Your task to perform on an android device: turn on airplane mode Image 0: 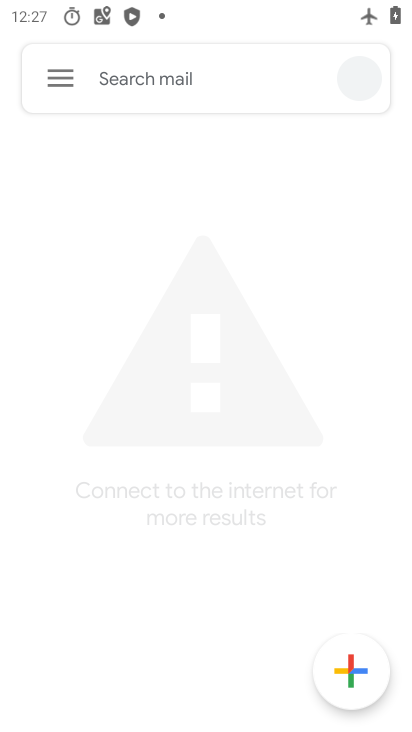
Step 0: drag from (195, 611) to (204, 322)
Your task to perform on an android device: turn on airplane mode Image 1: 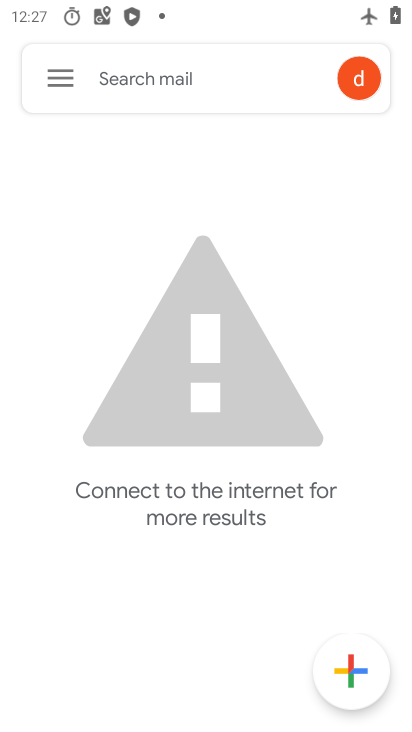
Step 1: drag from (206, 649) to (229, 320)
Your task to perform on an android device: turn on airplane mode Image 2: 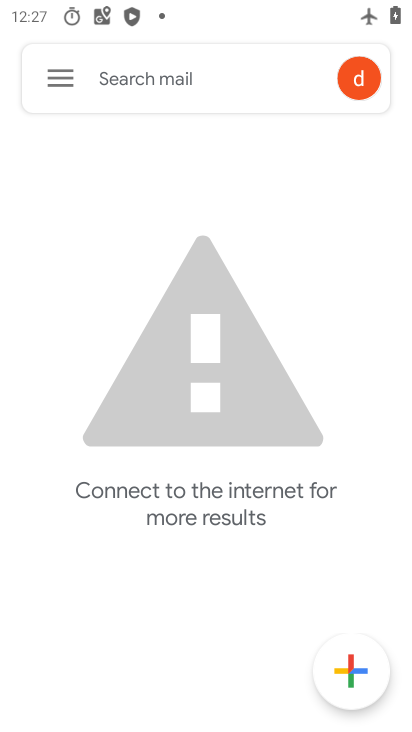
Step 2: press home button
Your task to perform on an android device: turn on airplane mode Image 3: 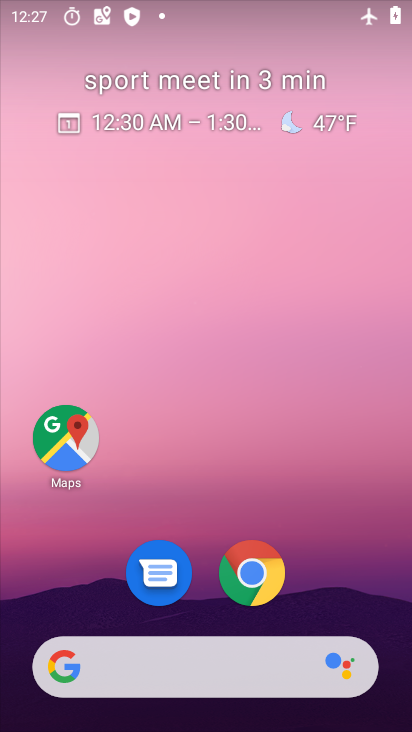
Step 3: drag from (201, 602) to (206, 219)
Your task to perform on an android device: turn on airplane mode Image 4: 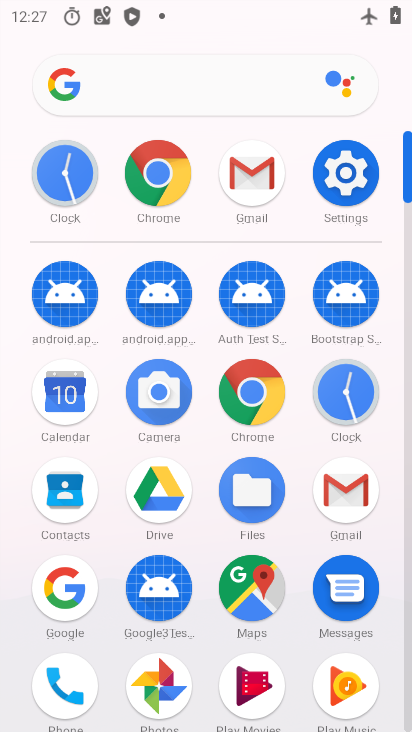
Step 4: click (350, 175)
Your task to perform on an android device: turn on airplane mode Image 5: 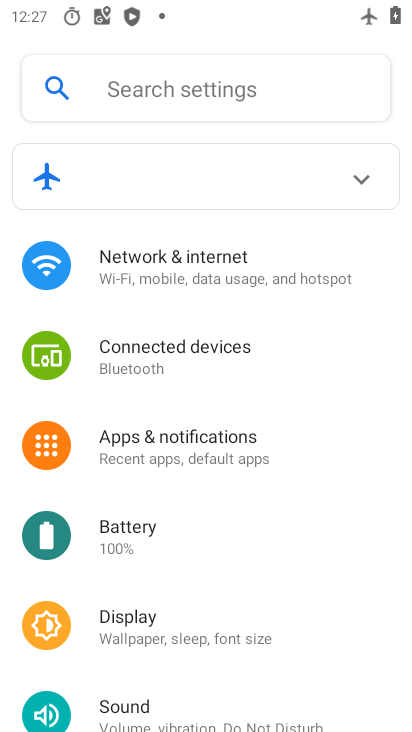
Step 5: click (208, 273)
Your task to perform on an android device: turn on airplane mode Image 6: 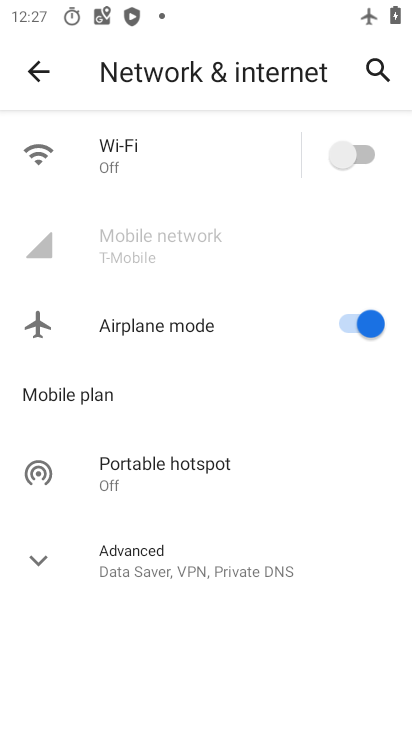
Step 6: click (373, 316)
Your task to perform on an android device: turn on airplane mode Image 7: 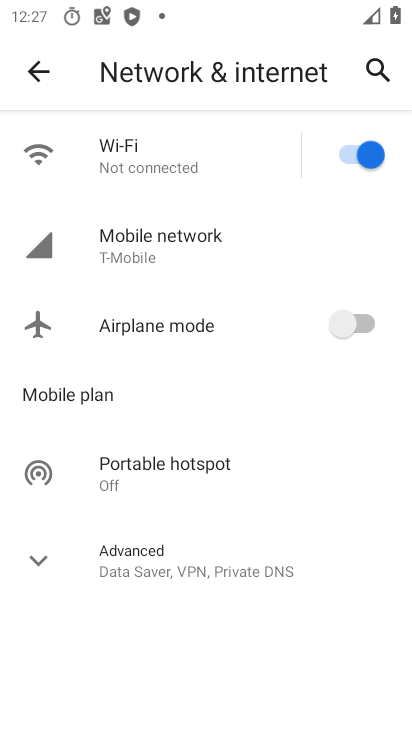
Step 7: task complete